Your task to perform on an android device: toggle pop-ups in chrome Image 0: 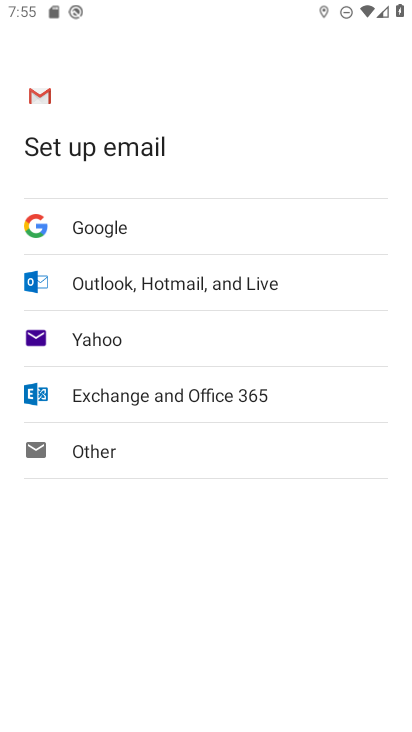
Step 0: press home button
Your task to perform on an android device: toggle pop-ups in chrome Image 1: 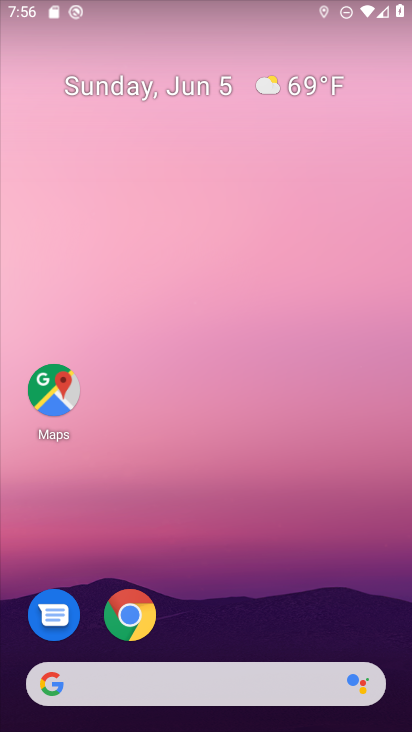
Step 1: click (130, 625)
Your task to perform on an android device: toggle pop-ups in chrome Image 2: 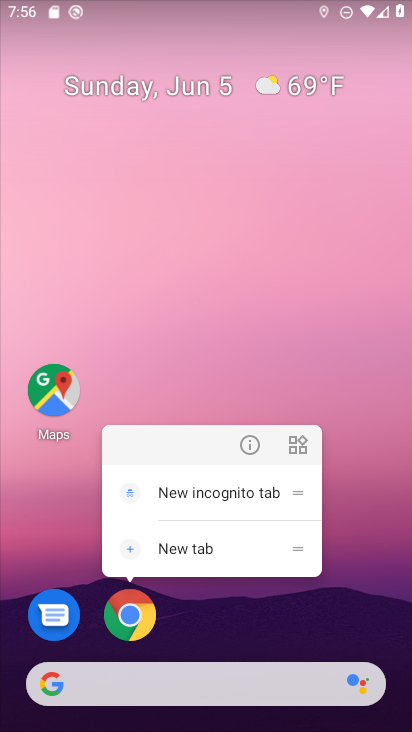
Step 2: click (131, 616)
Your task to perform on an android device: toggle pop-ups in chrome Image 3: 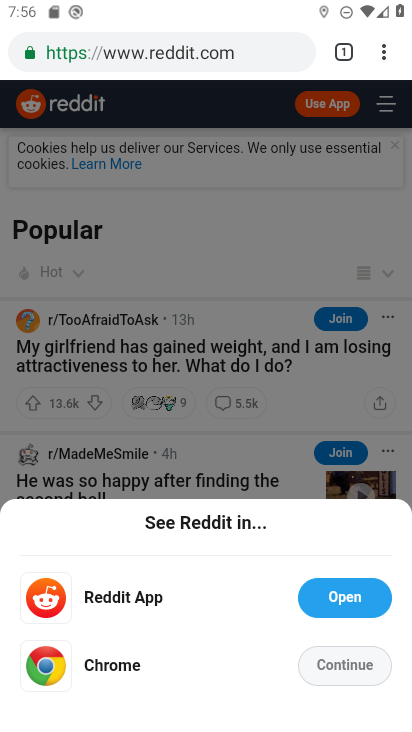
Step 3: click (381, 55)
Your task to perform on an android device: toggle pop-ups in chrome Image 4: 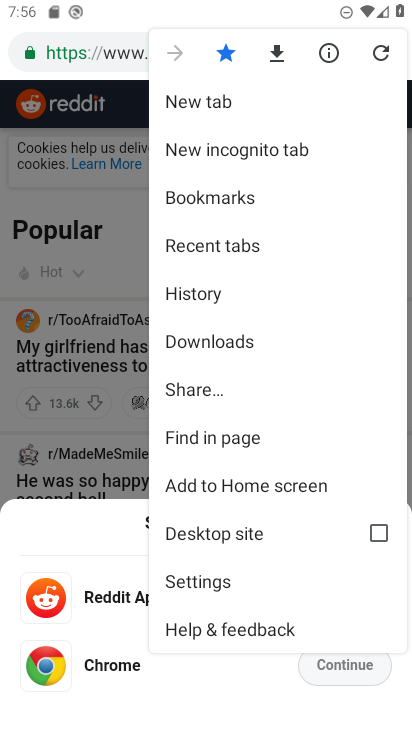
Step 4: click (197, 580)
Your task to perform on an android device: toggle pop-ups in chrome Image 5: 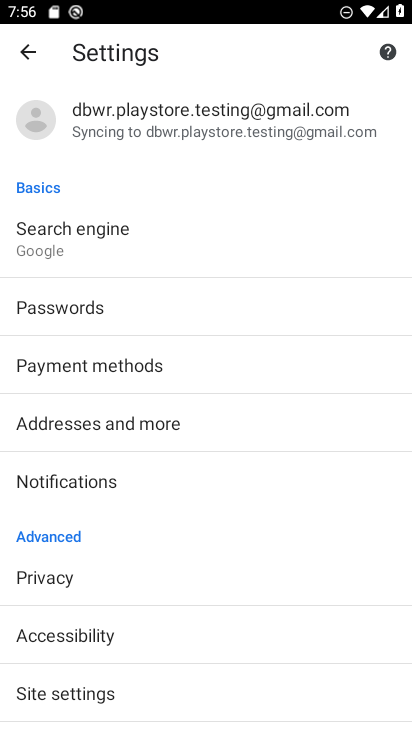
Step 5: drag from (85, 669) to (99, 305)
Your task to perform on an android device: toggle pop-ups in chrome Image 6: 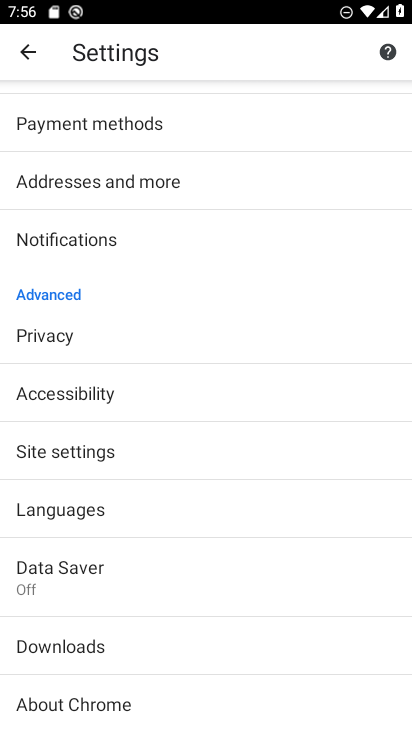
Step 6: click (83, 452)
Your task to perform on an android device: toggle pop-ups in chrome Image 7: 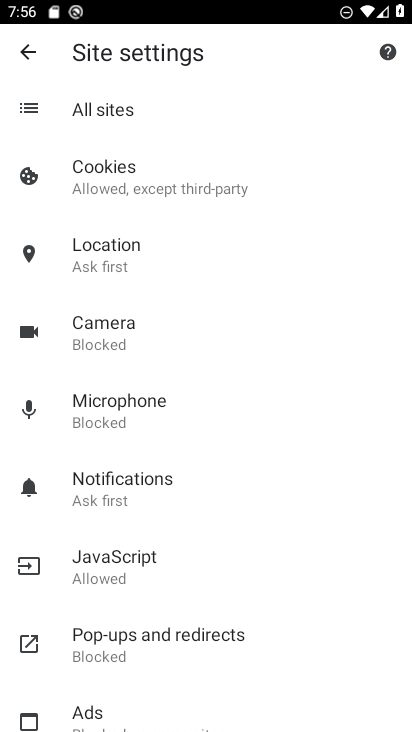
Step 7: click (106, 664)
Your task to perform on an android device: toggle pop-ups in chrome Image 8: 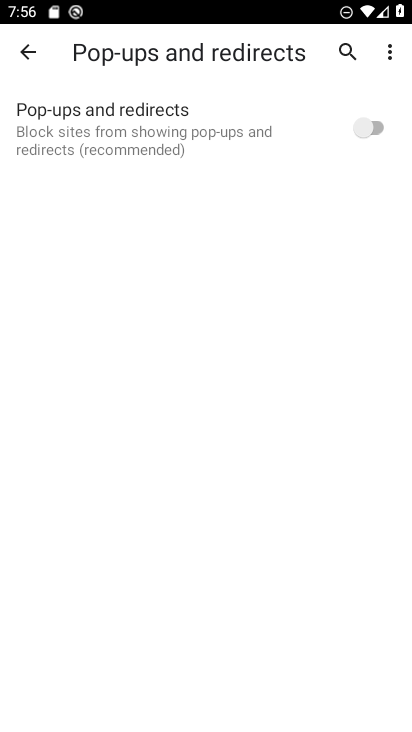
Step 8: click (382, 126)
Your task to perform on an android device: toggle pop-ups in chrome Image 9: 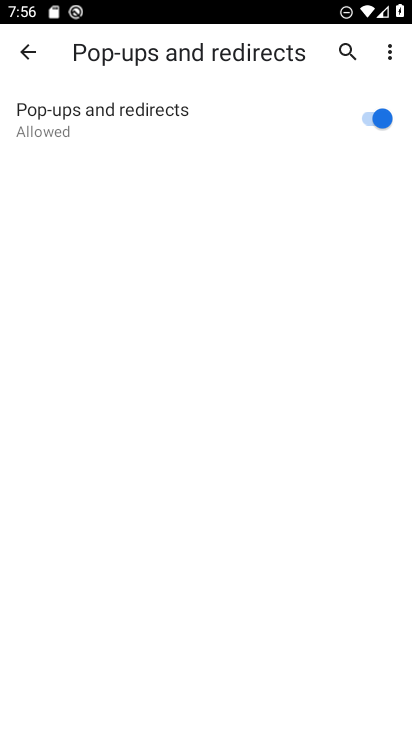
Step 9: task complete